Your task to perform on an android device: find photos in the google photos app Image 0: 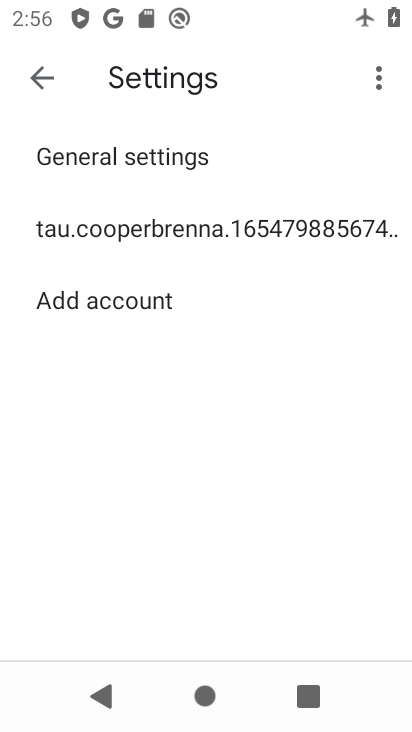
Step 0: press back button
Your task to perform on an android device: find photos in the google photos app Image 1: 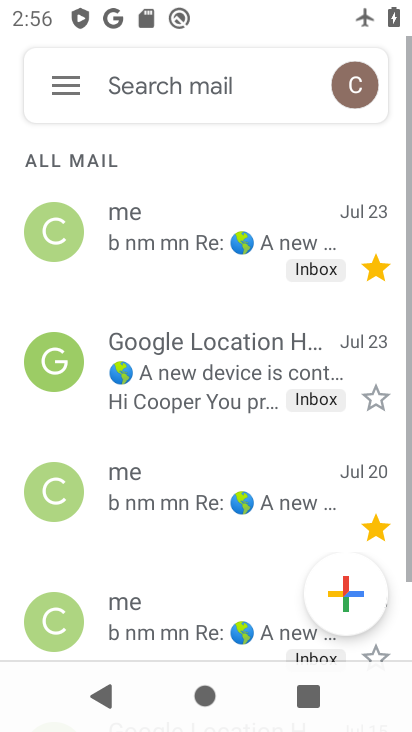
Step 1: press back button
Your task to perform on an android device: find photos in the google photos app Image 2: 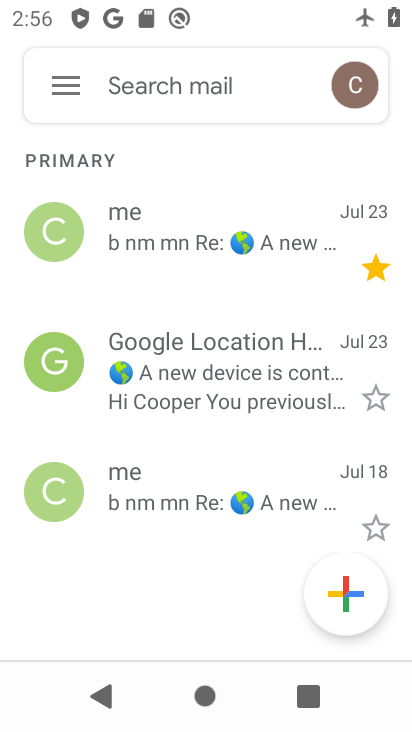
Step 2: press back button
Your task to perform on an android device: find photos in the google photos app Image 3: 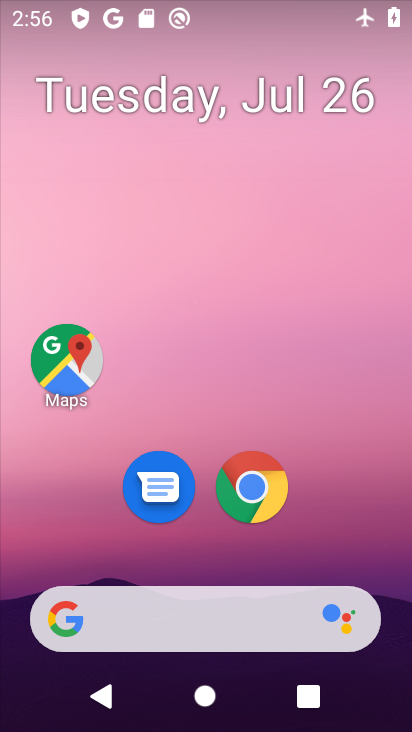
Step 3: drag from (124, 554) to (348, 7)
Your task to perform on an android device: find photos in the google photos app Image 4: 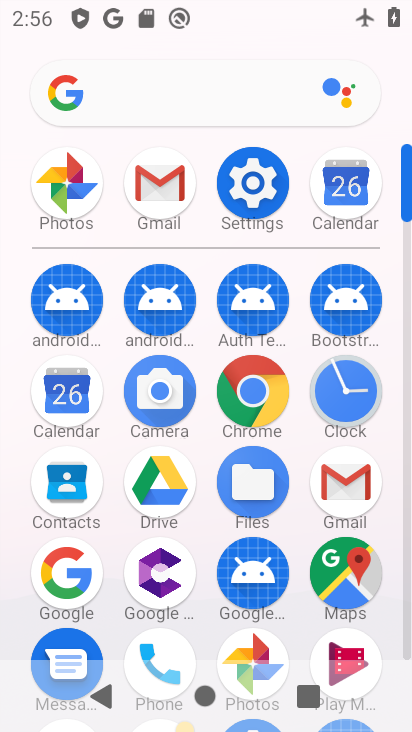
Step 4: click (255, 648)
Your task to perform on an android device: find photos in the google photos app Image 5: 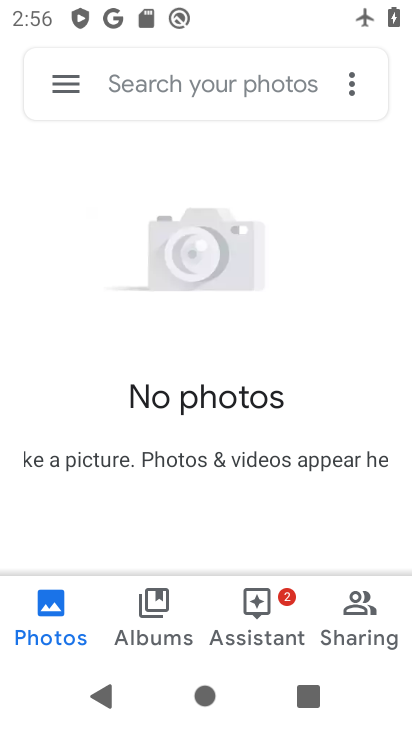
Step 5: task complete